Your task to perform on an android device: Go to wifi settings Image 0: 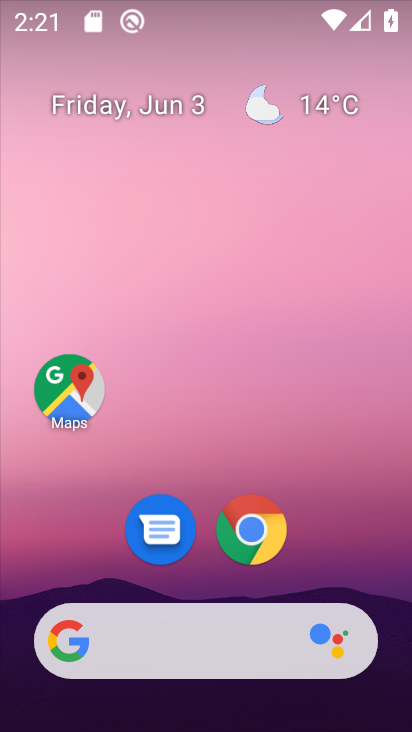
Step 0: drag from (271, 557) to (222, 214)
Your task to perform on an android device: Go to wifi settings Image 1: 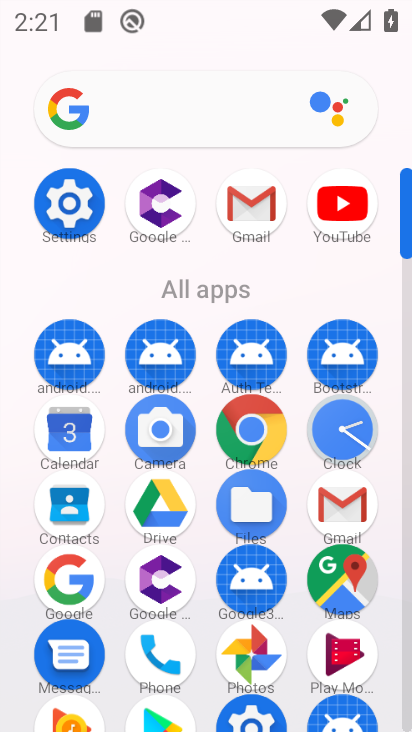
Step 1: click (74, 209)
Your task to perform on an android device: Go to wifi settings Image 2: 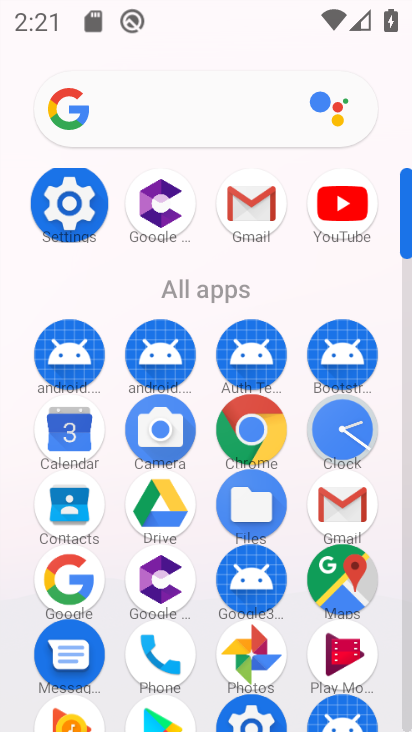
Step 2: click (74, 208)
Your task to perform on an android device: Go to wifi settings Image 3: 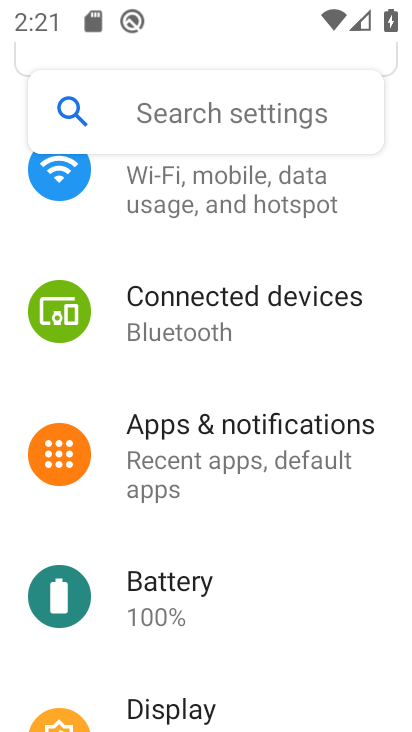
Step 3: drag from (199, 205) to (240, 460)
Your task to perform on an android device: Go to wifi settings Image 4: 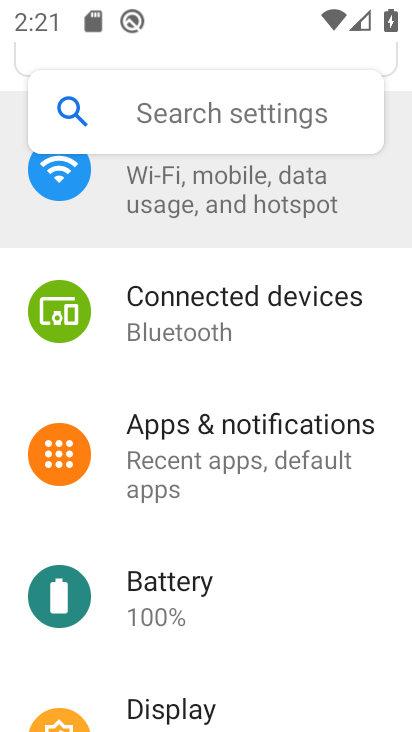
Step 4: drag from (189, 272) to (242, 466)
Your task to perform on an android device: Go to wifi settings Image 5: 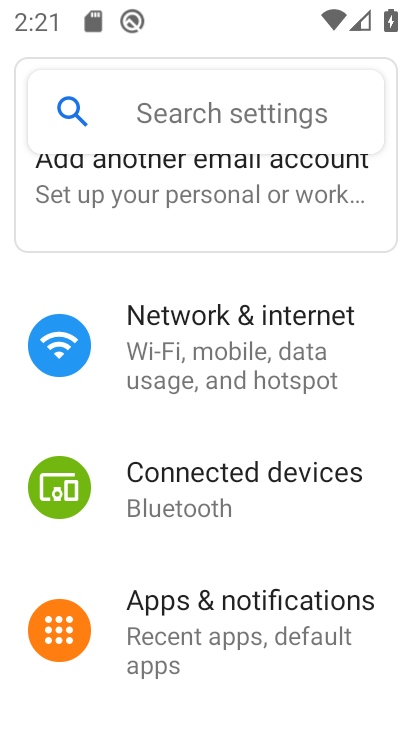
Step 5: click (238, 355)
Your task to perform on an android device: Go to wifi settings Image 6: 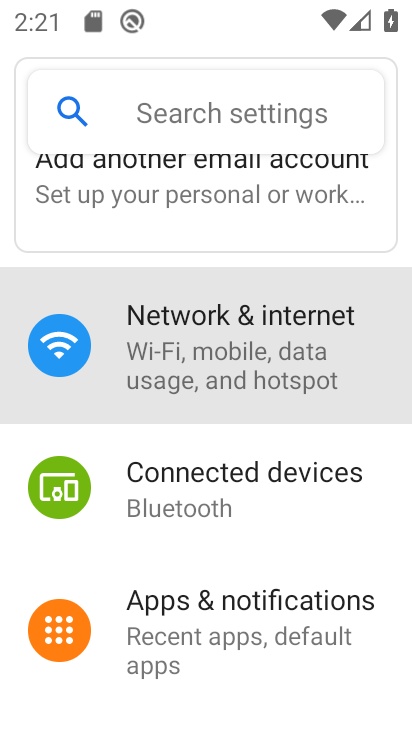
Step 6: click (239, 349)
Your task to perform on an android device: Go to wifi settings Image 7: 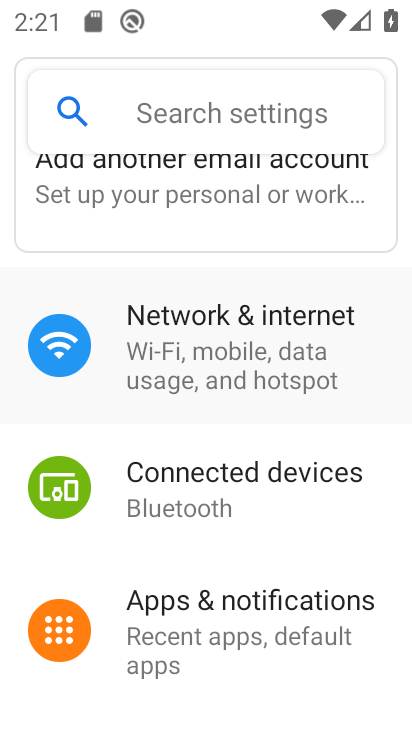
Step 7: click (239, 349)
Your task to perform on an android device: Go to wifi settings Image 8: 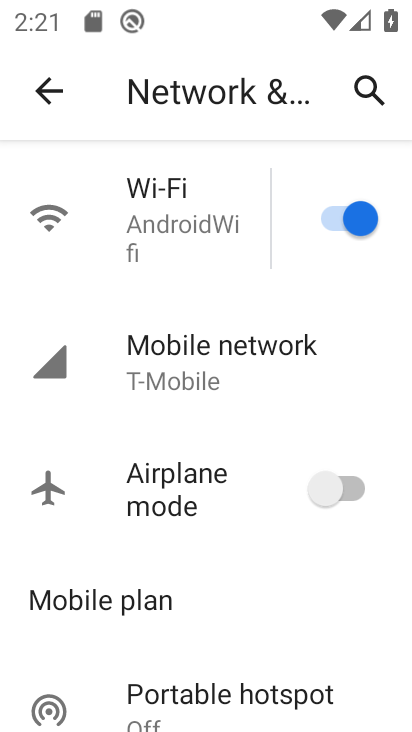
Step 8: task complete